Your task to perform on an android device: turn off location Image 0: 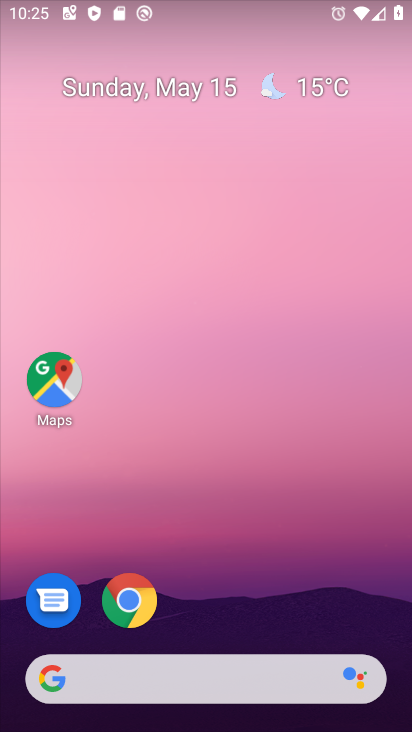
Step 0: click (306, 697)
Your task to perform on an android device: turn off location Image 1: 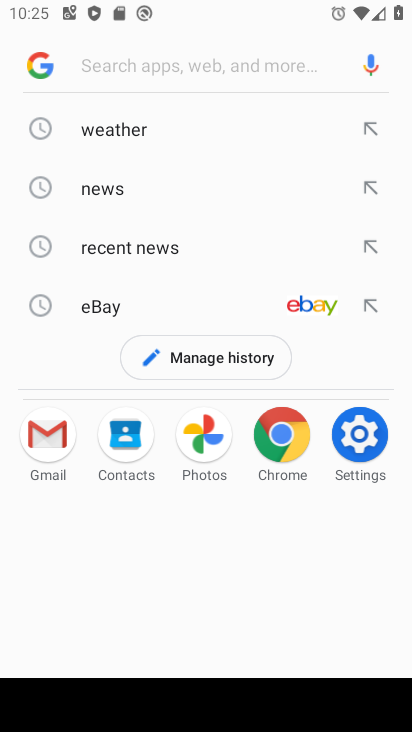
Step 1: press home button
Your task to perform on an android device: turn off location Image 2: 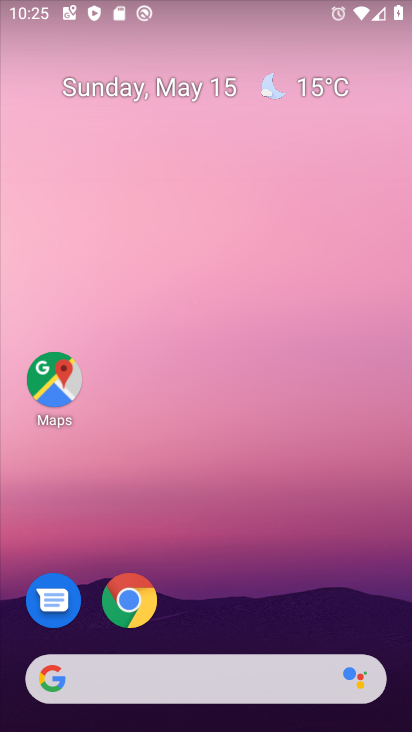
Step 2: drag from (356, 604) to (346, 209)
Your task to perform on an android device: turn off location Image 3: 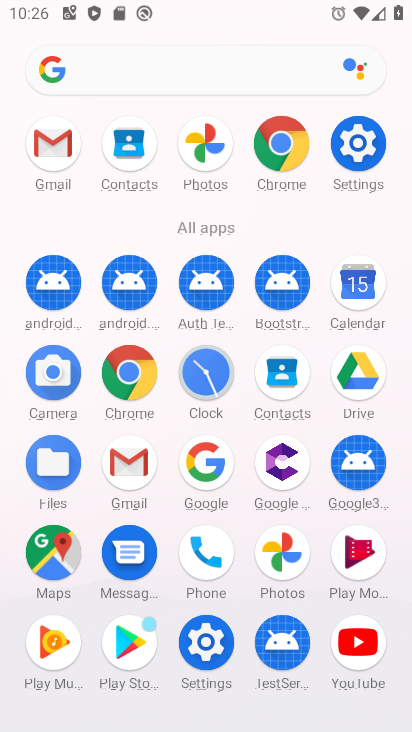
Step 3: click (349, 159)
Your task to perform on an android device: turn off location Image 4: 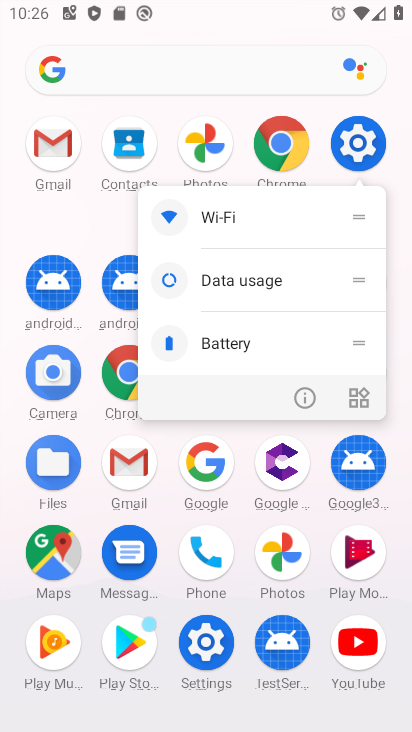
Step 4: click (349, 159)
Your task to perform on an android device: turn off location Image 5: 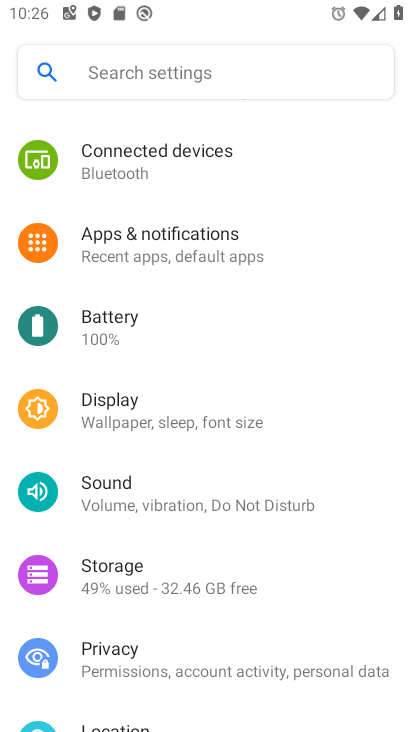
Step 5: drag from (352, 649) to (365, 411)
Your task to perform on an android device: turn off location Image 6: 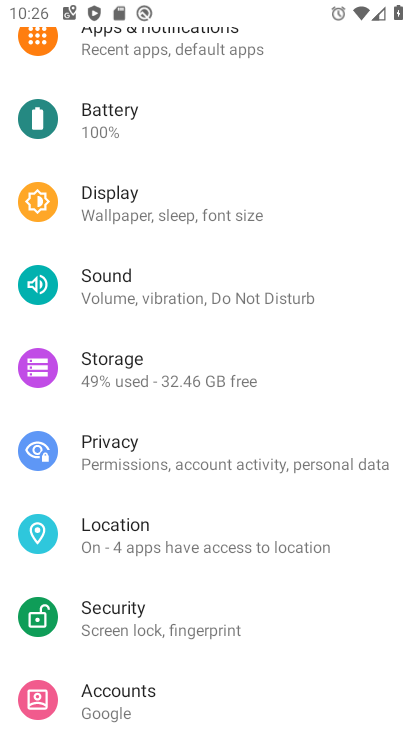
Step 6: drag from (355, 624) to (357, 403)
Your task to perform on an android device: turn off location Image 7: 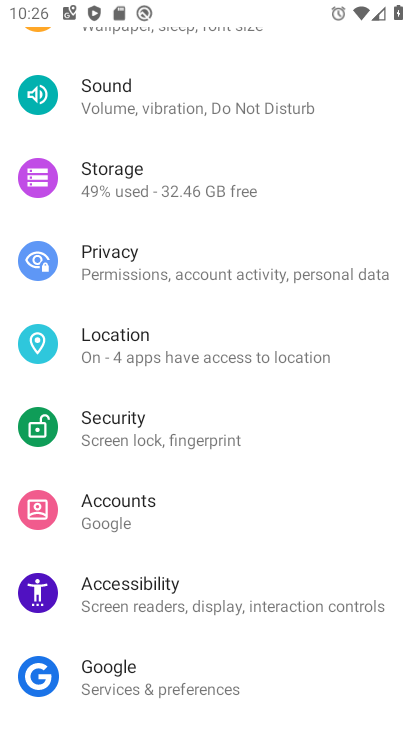
Step 7: drag from (332, 669) to (333, 467)
Your task to perform on an android device: turn off location Image 8: 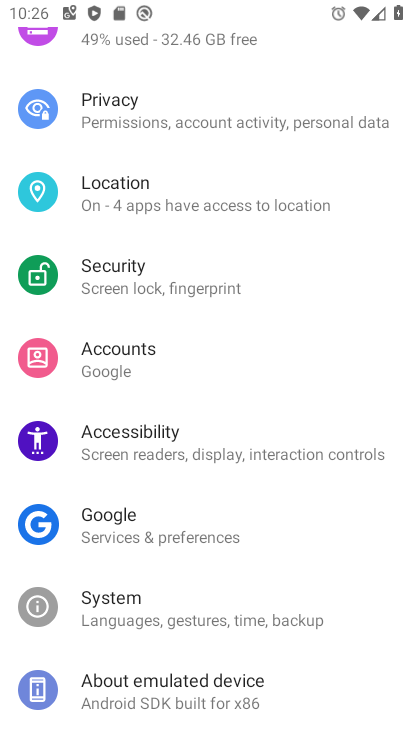
Step 8: drag from (352, 642) to (379, 512)
Your task to perform on an android device: turn off location Image 9: 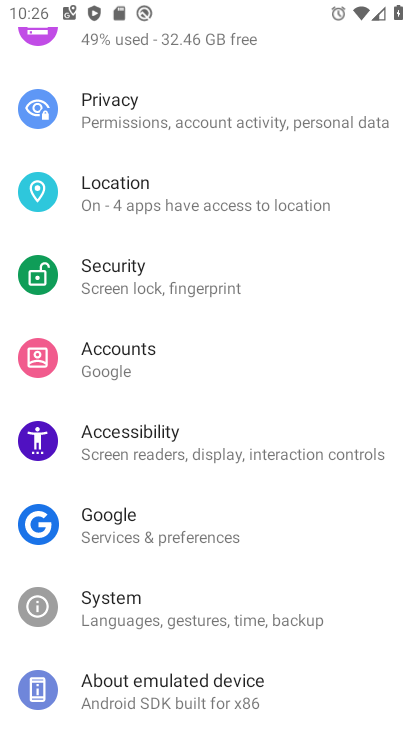
Step 9: click (193, 213)
Your task to perform on an android device: turn off location Image 10: 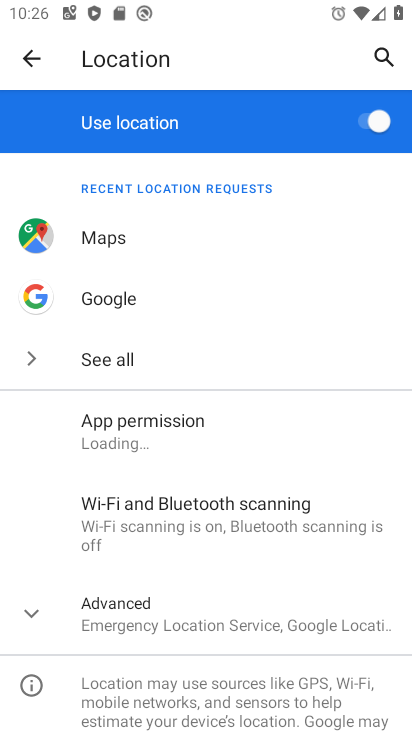
Step 10: click (358, 130)
Your task to perform on an android device: turn off location Image 11: 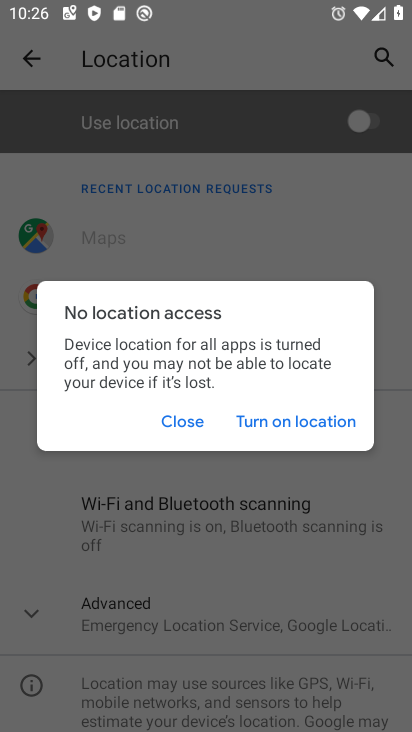
Step 11: task complete